Your task to perform on an android device: set the stopwatch Image 0: 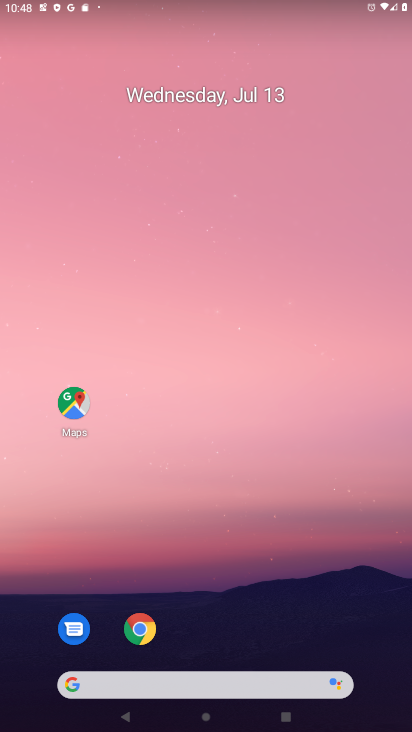
Step 0: drag from (264, 651) to (276, 123)
Your task to perform on an android device: set the stopwatch Image 1: 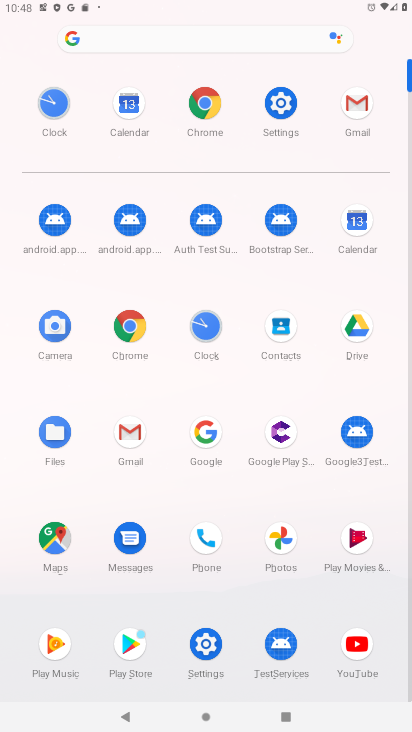
Step 1: click (53, 132)
Your task to perform on an android device: set the stopwatch Image 2: 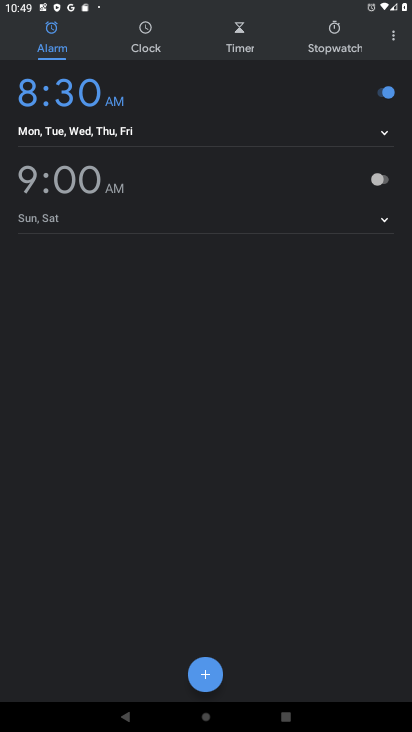
Step 2: click (323, 25)
Your task to perform on an android device: set the stopwatch Image 3: 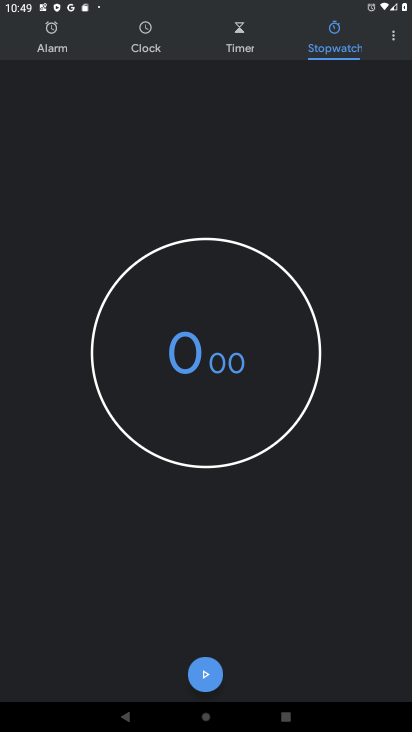
Step 3: task complete